Your task to perform on an android device: Play the last video I watched on Youtube Image 0: 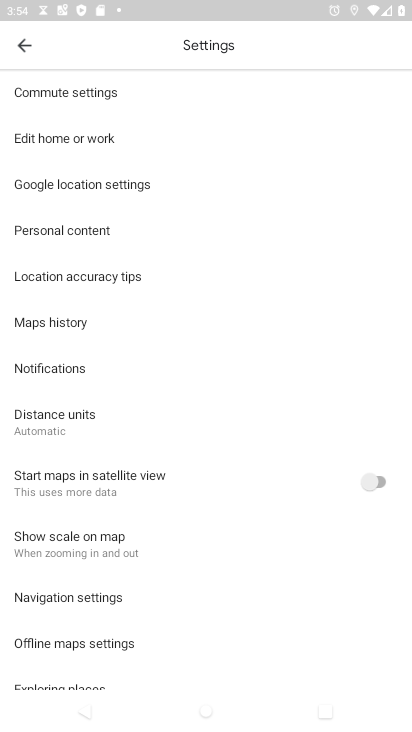
Step 0: press home button
Your task to perform on an android device: Play the last video I watched on Youtube Image 1: 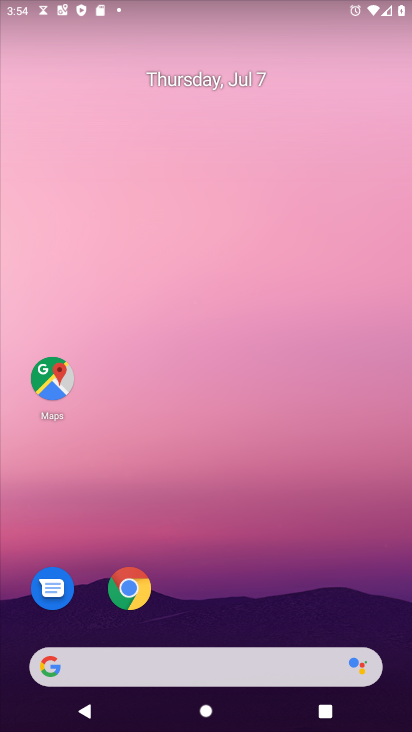
Step 1: drag from (231, 617) to (281, 50)
Your task to perform on an android device: Play the last video I watched on Youtube Image 2: 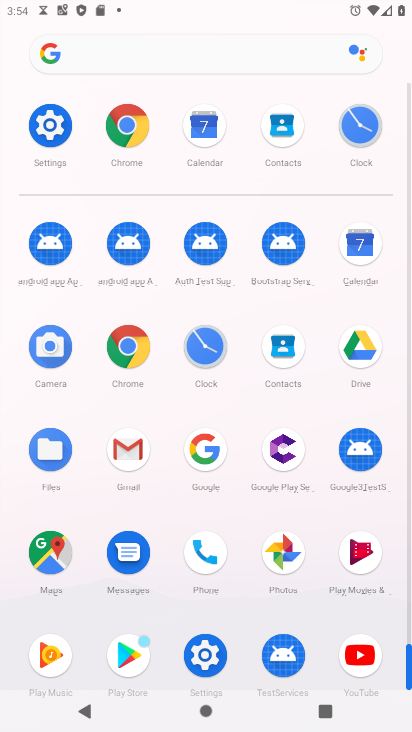
Step 2: click (361, 654)
Your task to perform on an android device: Play the last video I watched on Youtube Image 3: 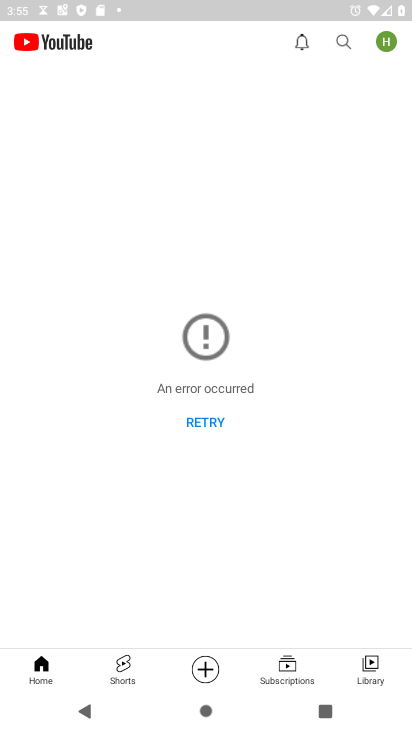
Step 3: click (207, 414)
Your task to perform on an android device: Play the last video I watched on Youtube Image 4: 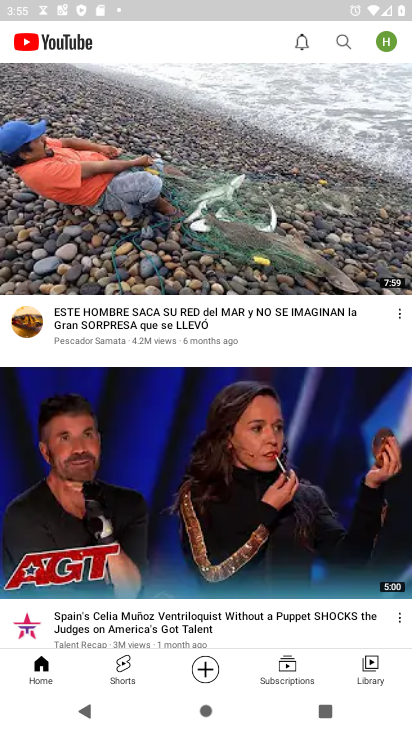
Step 4: click (368, 662)
Your task to perform on an android device: Play the last video I watched on Youtube Image 5: 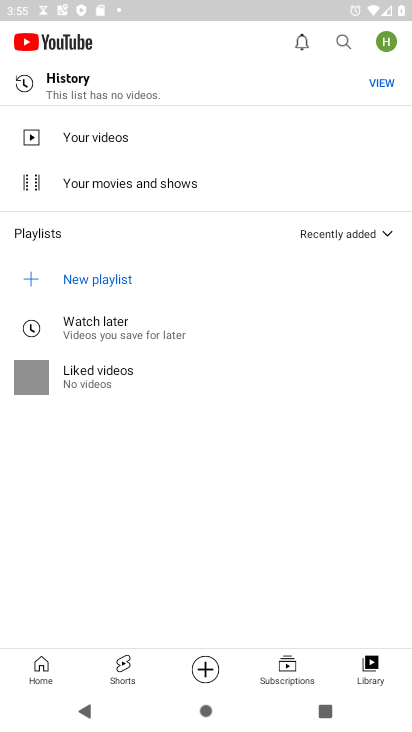
Step 5: click (394, 87)
Your task to perform on an android device: Play the last video I watched on Youtube Image 6: 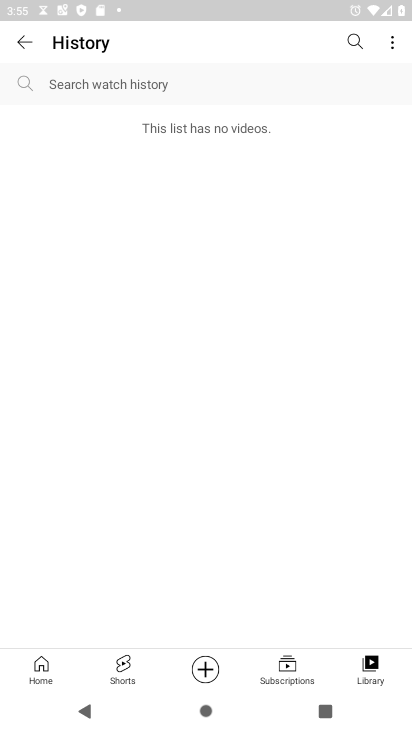
Step 6: task complete